Your task to perform on an android device: Open Wikipedia Image 0: 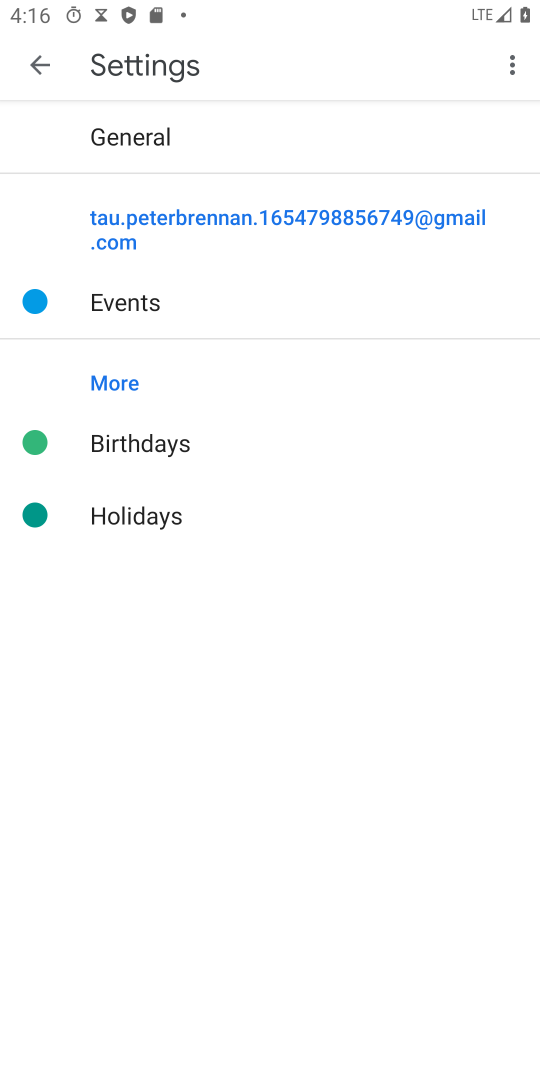
Step 0: press home button
Your task to perform on an android device: Open Wikipedia Image 1: 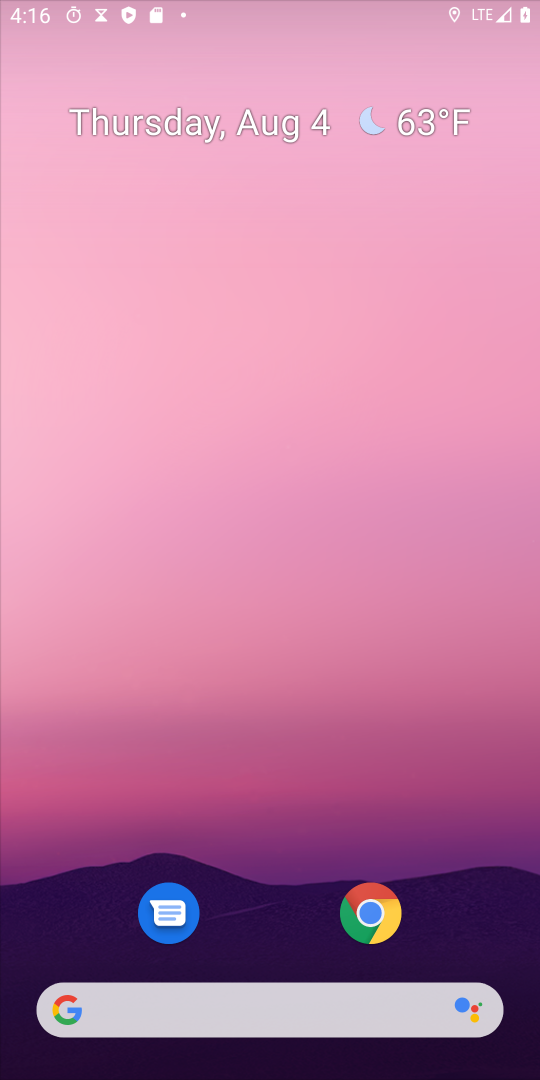
Step 1: drag from (296, 823) to (368, 40)
Your task to perform on an android device: Open Wikipedia Image 2: 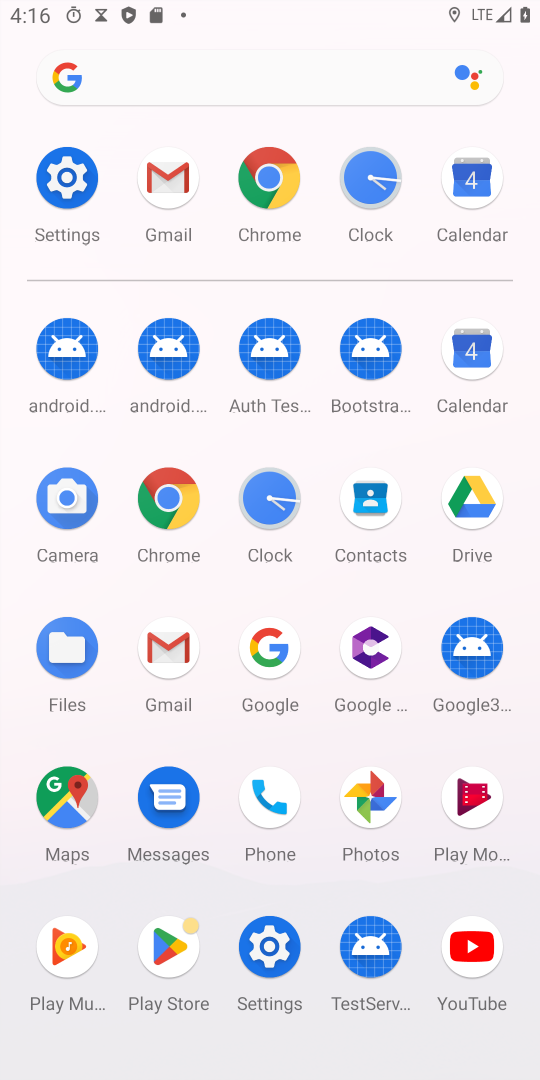
Step 2: click (182, 481)
Your task to perform on an android device: Open Wikipedia Image 3: 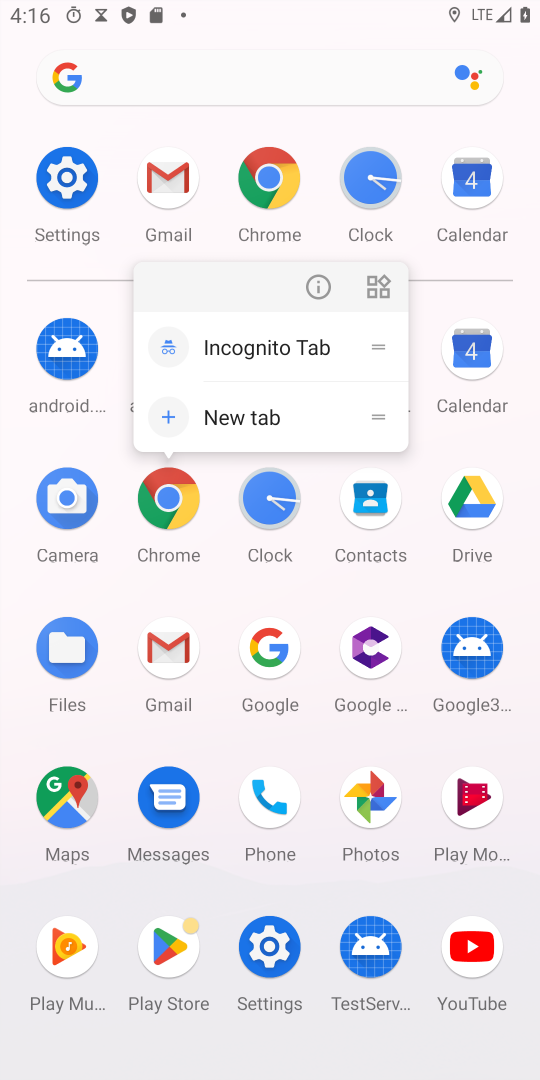
Step 3: click (160, 499)
Your task to perform on an android device: Open Wikipedia Image 4: 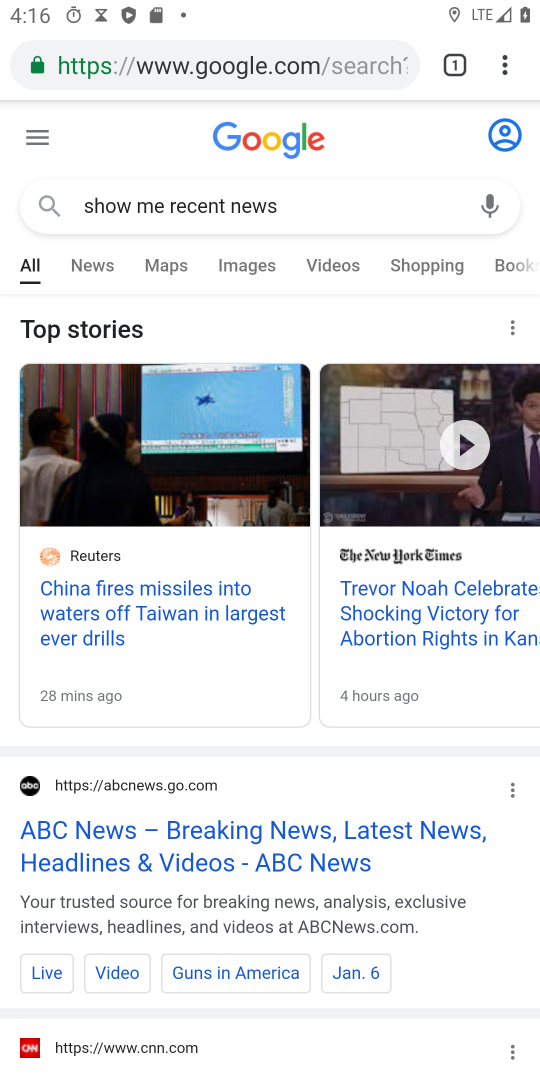
Step 4: click (274, 64)
Your task to perform on an android device: Open Wikipedia Image 5: 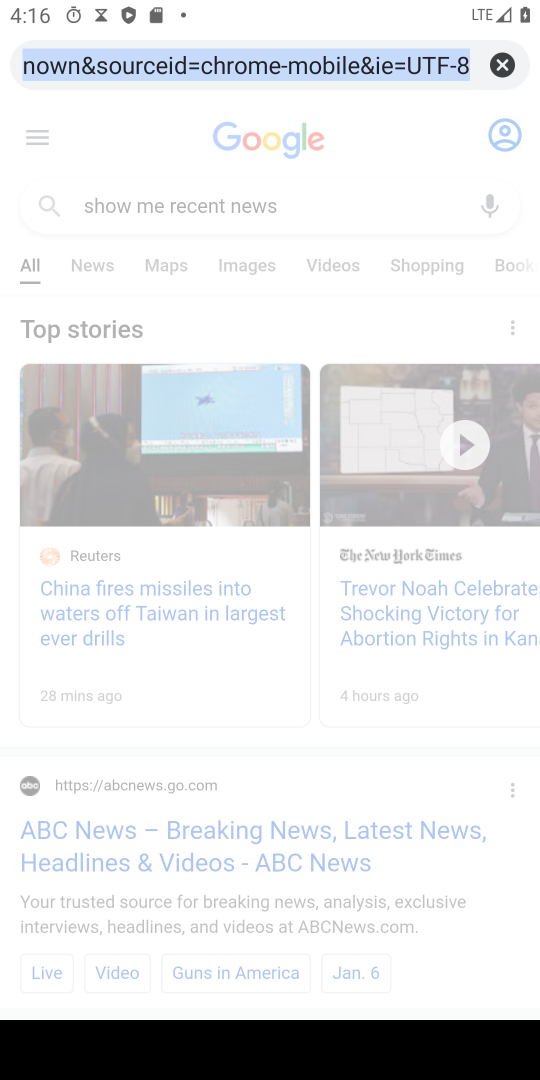
Step 5: type "wikipedia"
Your task to perform on an android device: Open Wikipedia Image 6: 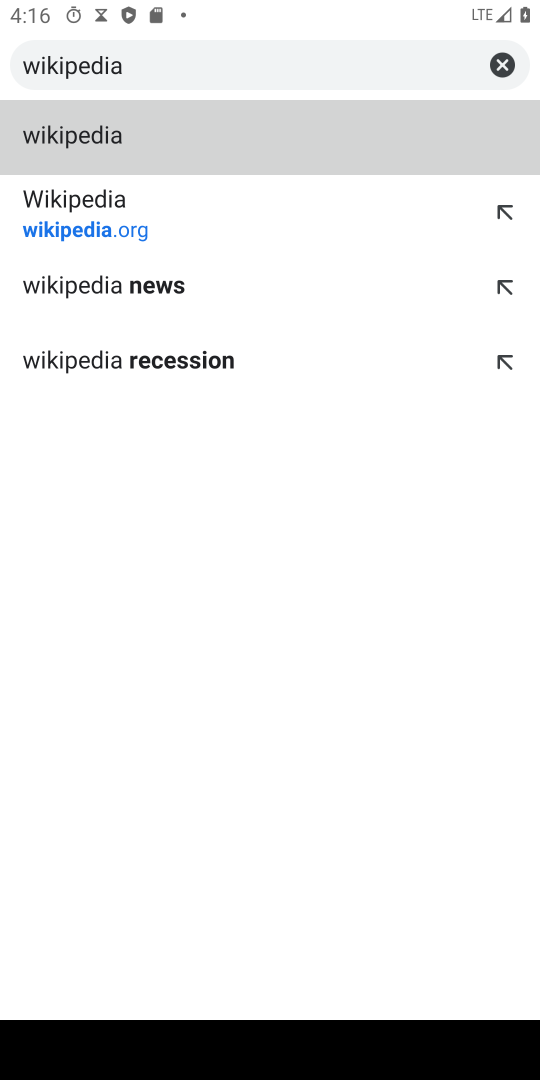
Step 6: click (119, 209)
Your task to perform on an android device: Open Wikipedia Image 7: 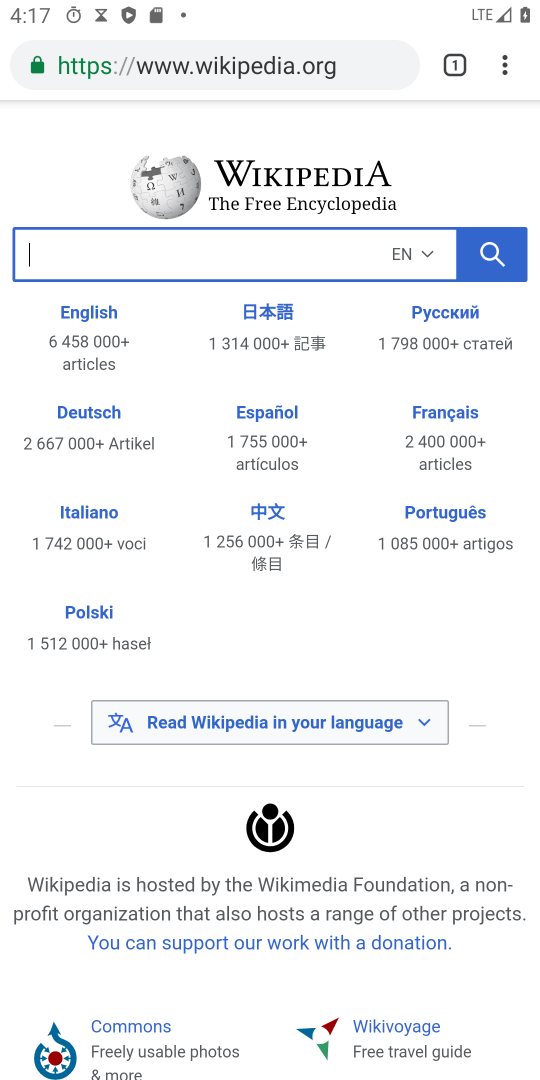
Step 7: task complete